Your task to perform on an android device: Open the web browser Image 0: 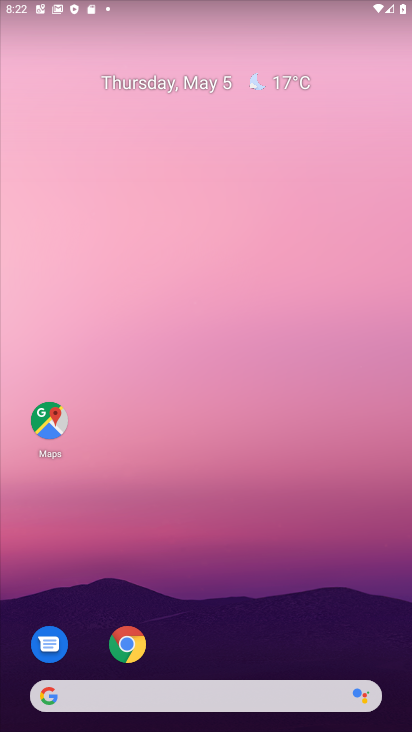
Step 0: click (134, 652)
Your task to perform on an android device: Open the web browser Image 1: 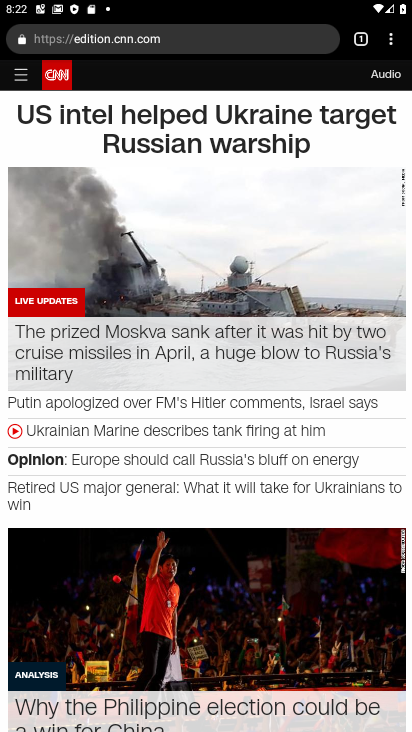
Step 1: task complete